Your task to perform on an android device: Open the calendar and show me this week's events Image 0: 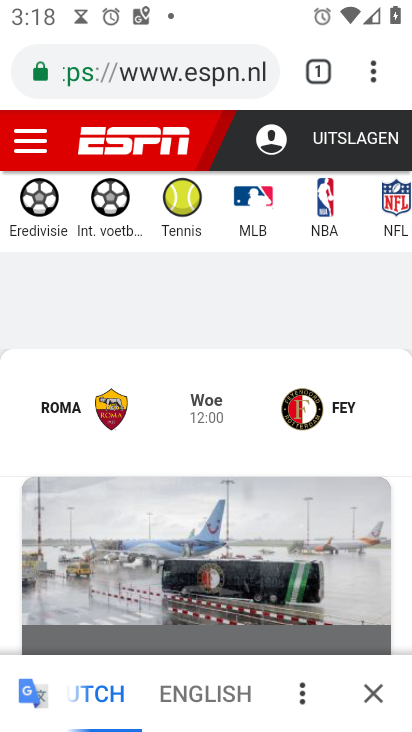
Step 0: press home button
Your task to perform on an android device: Open the calendar and show me this week's events Image 1: 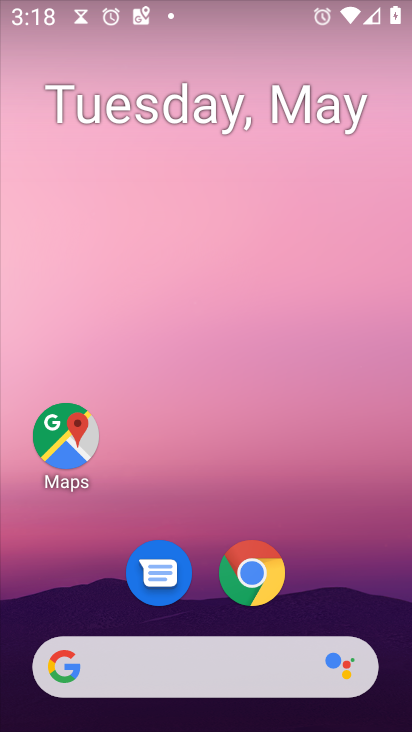
Step 1: drag from (326, 571) to (254, 1)
Your task to perform on an android device: Open the calendar and show me this week's events Image 2: 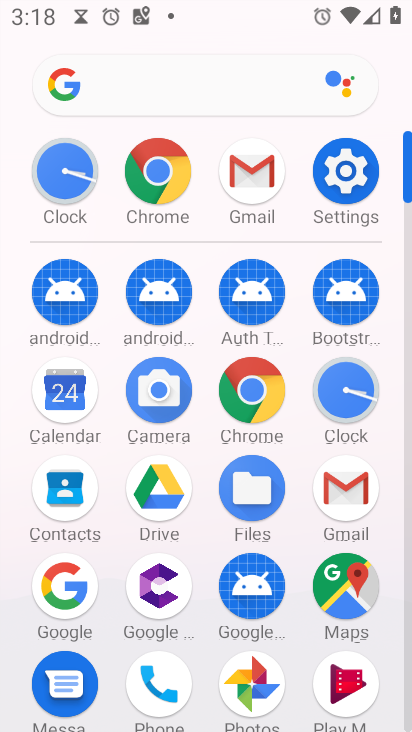
Step 2: drag from (8, 564) to (0, 287)
Your task to perform on an android device: Open the calendar and show me this week's events Image 3: 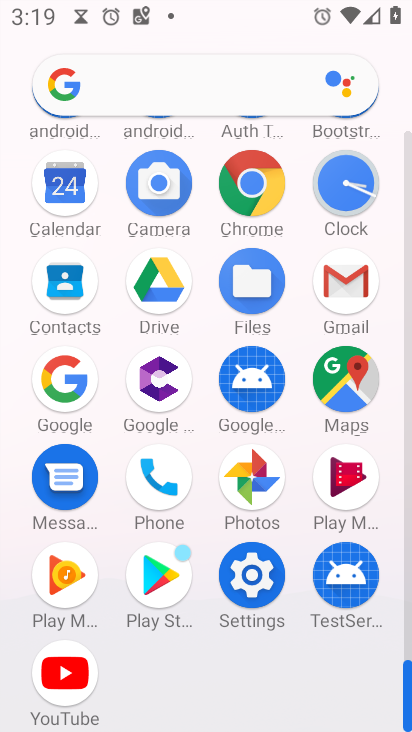
Step 3: click (66, 181)
Your task to perform on an android device: Open the calendar and show me this week's events Image 4: 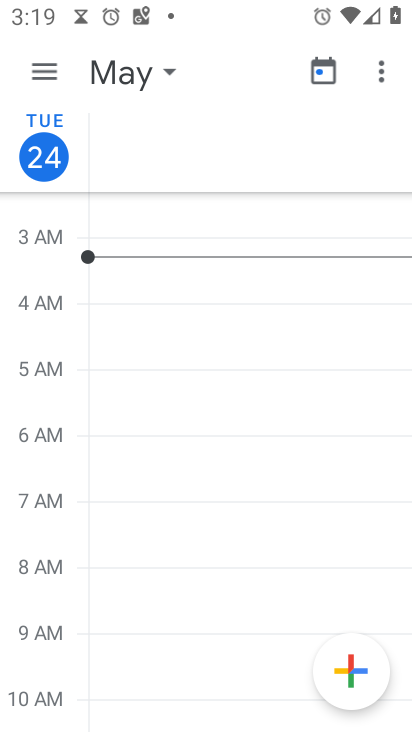
Step 4: click (40, 71)
Your task to perform on an android device: Open the calendar and show me this week's events Image 5: 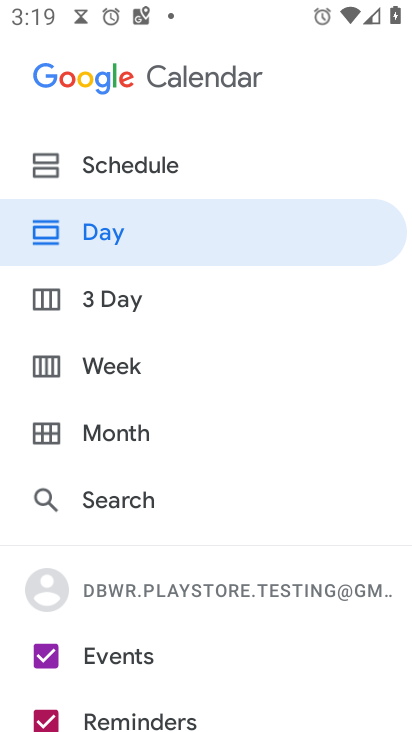
Step 5: click (136, 367)
Your task to perform on an android device: Open the calendar and show me this week's events Image 6: 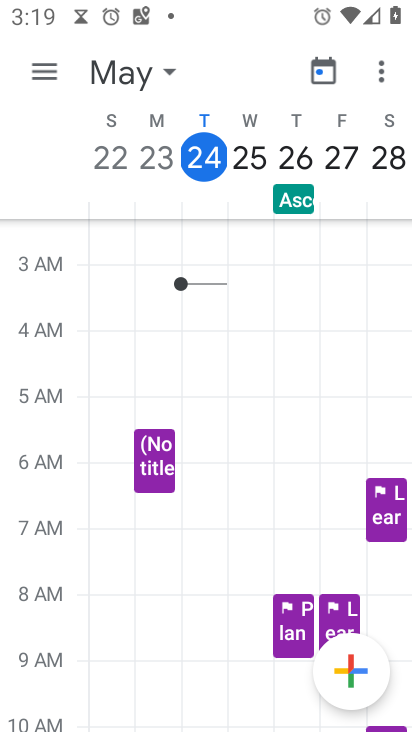
Step 6: task complete